Your task to perform on an android device: open a bookmark in the chrome app Image 0: 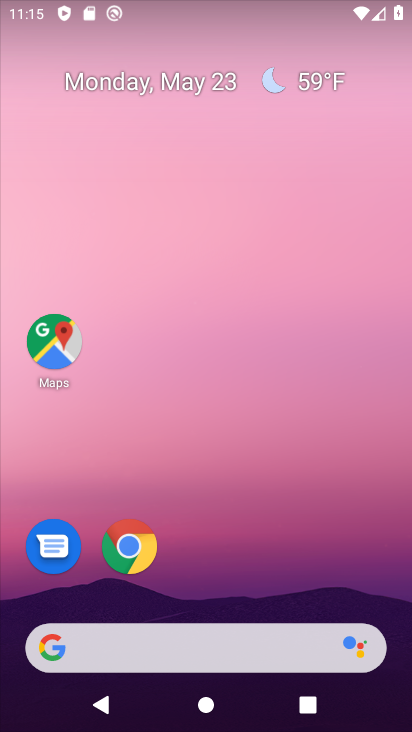
Step 0: drag from (206, 603) to (272, 199)
Your task to perform on an android device: open a bookmark in the chrome app Image 1: 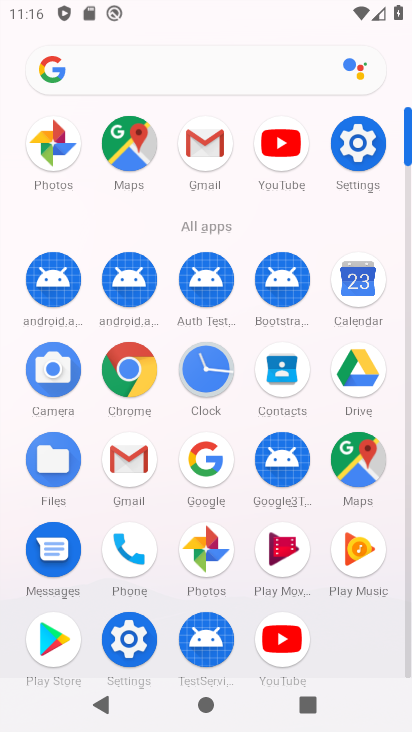
Step 1: click (124, 374)
Your task to perform on an android device: open a bookmark in the chrome app Image 2: 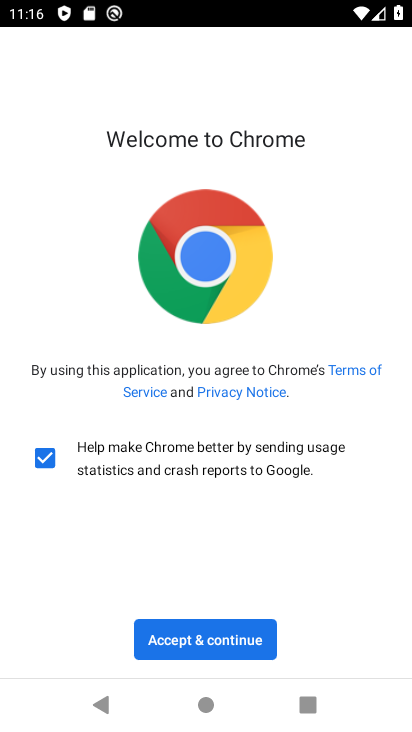
Step 2: click (232, 650)
Your task to perform on an android device: open a bookmark in the chrome app Image 3: 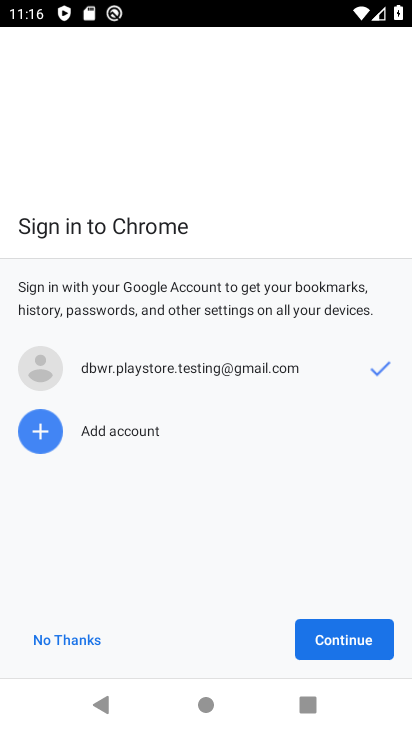
Step 3: click (81, 639)
Your task to perform on an android device: open a bookmark in the chrome app Image 4: 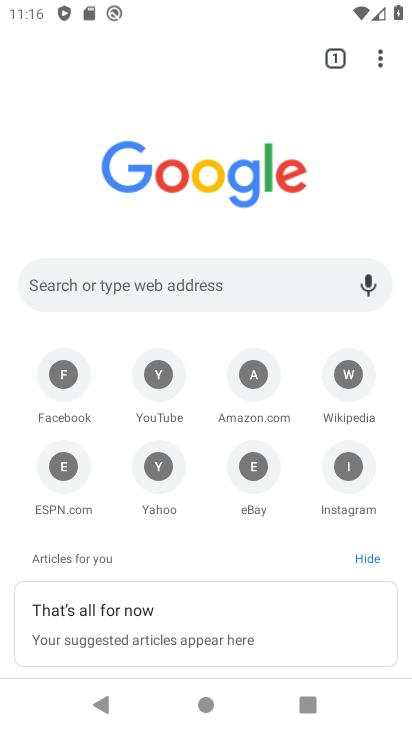
Step 4: click (376, 50)
Your task to perform on an android device: open a bookmark in the chrome app Image 5: 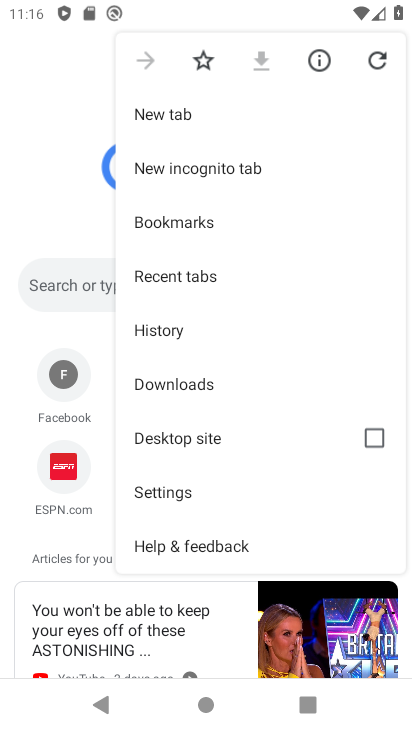
Step 5: click (207, 218)
Your task to perform on an android device: open a bookmark in the chrome app Image 6: 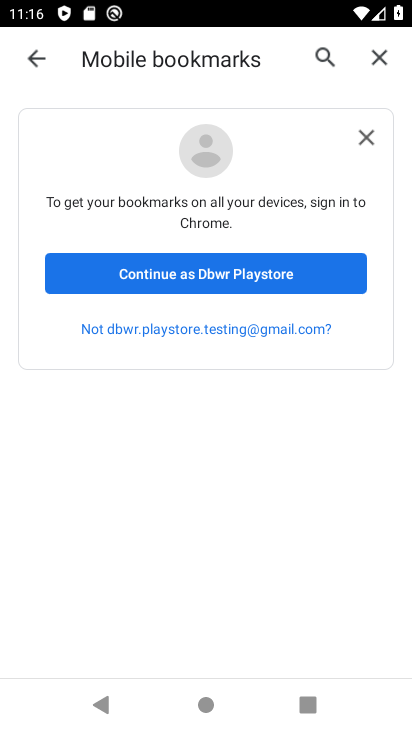
Step 6: task complete